Your task to perform on an android device: open chrome privacy settings Image 0: 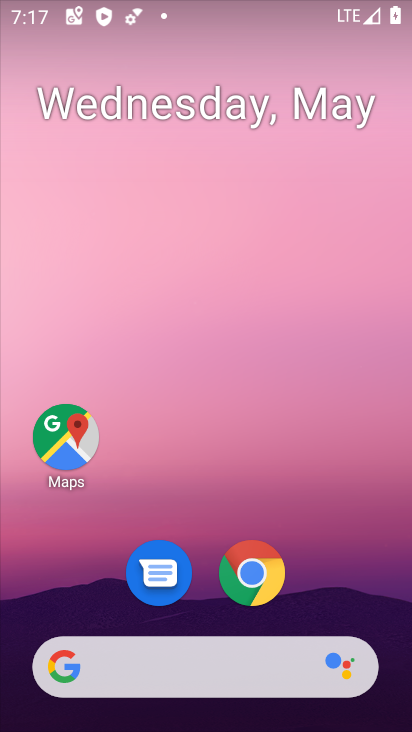
Step 0: drag from (284, 384) to (251, 149)
Your task to perform on an android device: open chrome privacy settings Image 1: 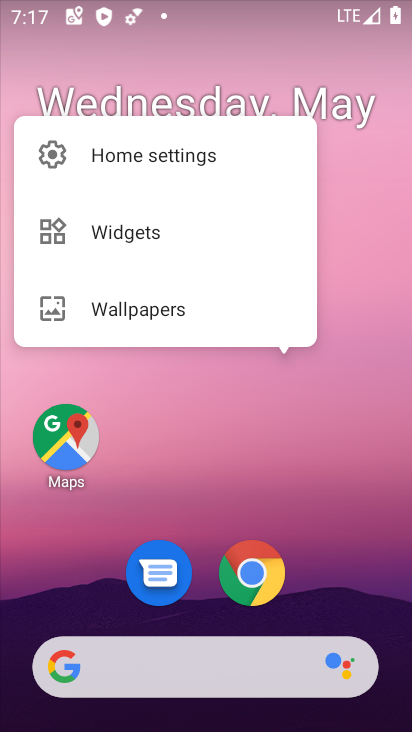
Step 1: click (310, 553)
Your task to perform on an android device: open chrome privacy settings Image 2: 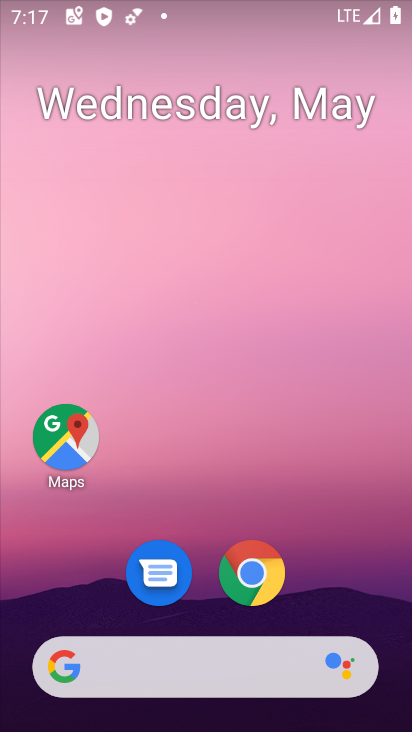
Step 2: drag from (308, 574) to (247, 61)
Your task to perform on an android device: open chrome privacy settings Image 3: 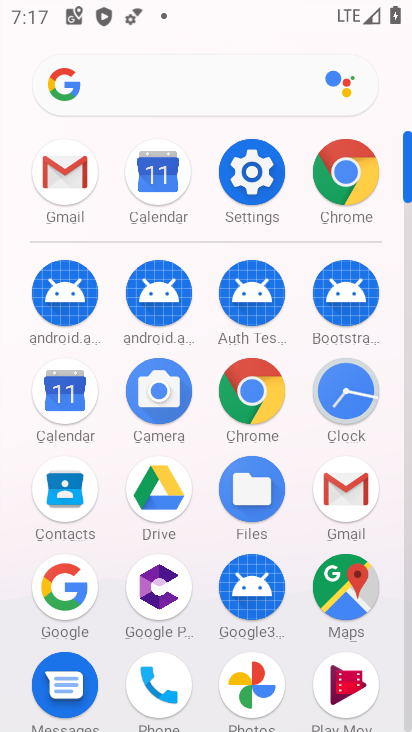
Step 3: click (347, 211)
Your task to perform on an android device: open chrome privacy settings Image 4: 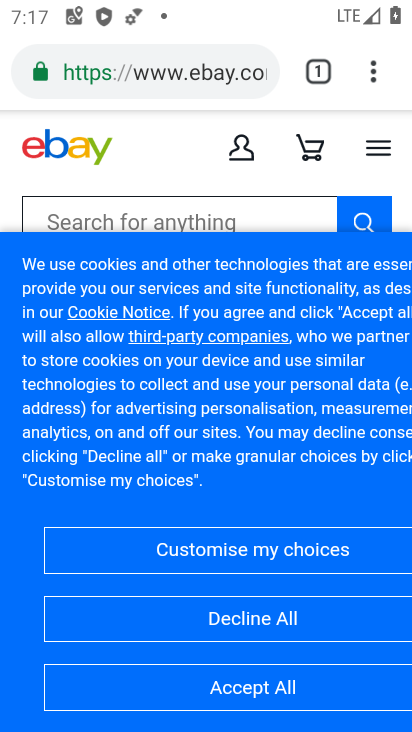
Step 4: click (369, 70)
Your task to perform on an android device: open chrome privacy settings Image 5: 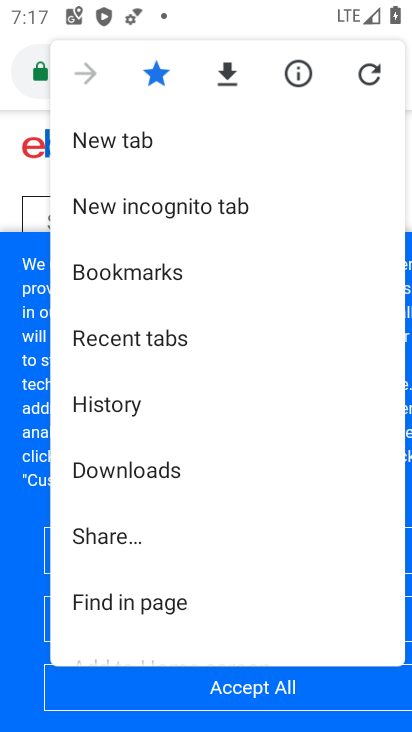
Step 5: drag from (142, 553) to (186, 198)
Your task to perform on an android device: open chrome privacy settings Image 6: 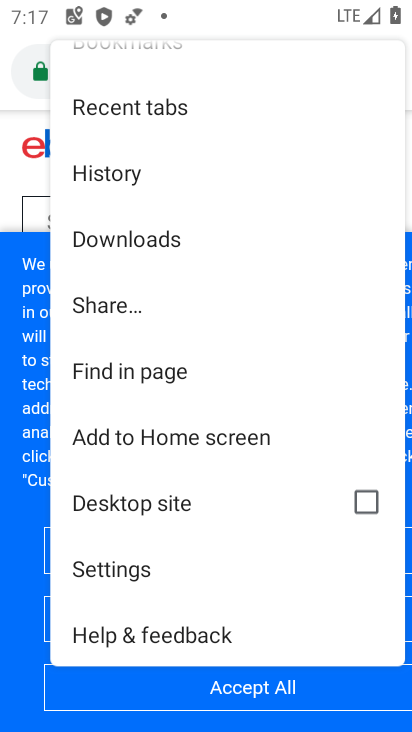
Step 6: click (109, 574)
Your task to perform on an android device: open chrome privacy settings Image 7: 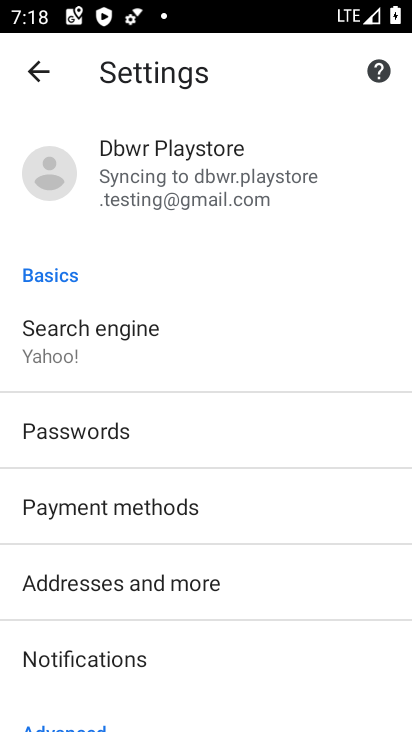
Step 7: drag from (94, 617) to (122, 238)
Your task to perform on an android device: open chrome privacy settings Image 8: 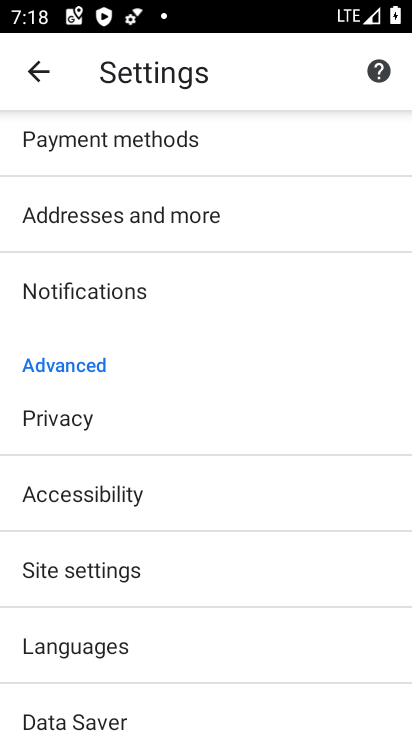
Step 8: click (82, 424)
Your task to perform on an android device: open chrome privacy settings Image 9: 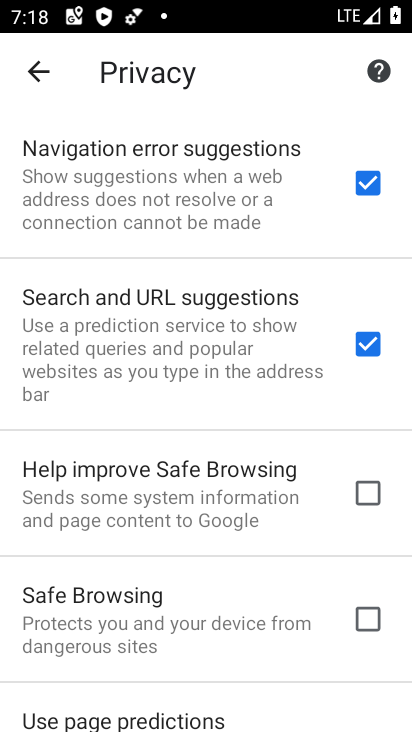
Step 9: task complete